Your task to perform on an android device: turn on javascript in the chrome app Image 0: 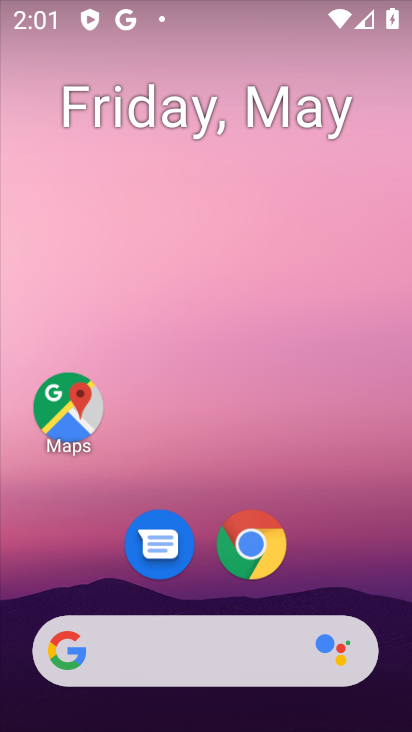
Step 0: click (244, 538)
Your task to perform on an android device: turn on javascript in the chrome app Image 1: 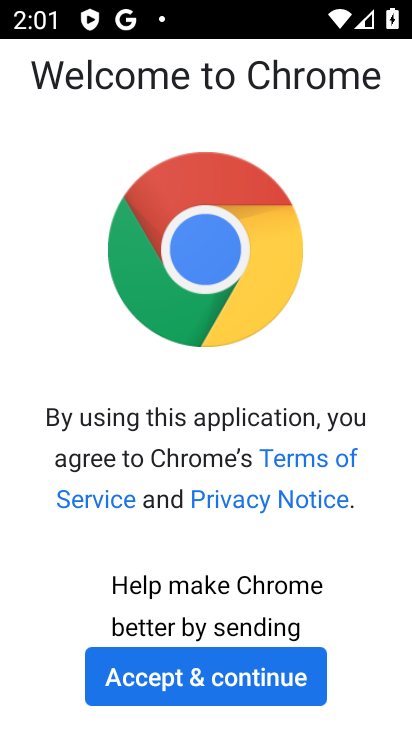
Step 1: click (249, 659)
Your task to perform on an android device: turn on javascript in the chrome app Image 2: 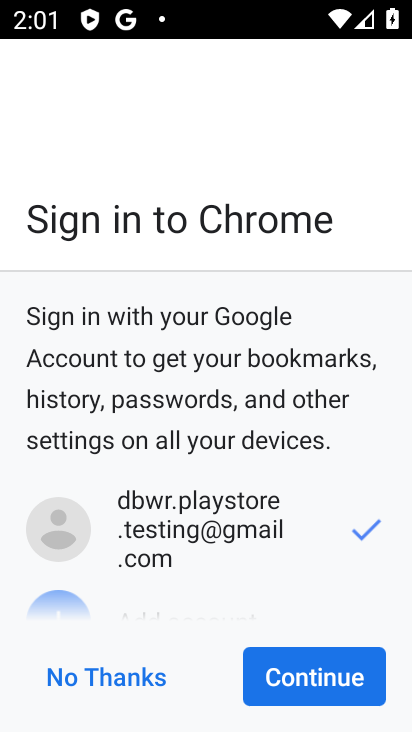
Step 2: click (277, 673)
Your task to perform on an android device: turn on javascript in the chrome app Image 3: 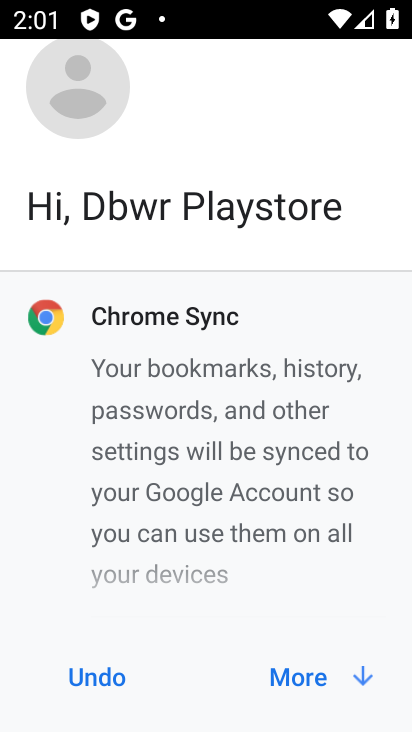
Step 3: click (302, 659)
Your task to perform on an android device: turn on javascript in the chrome app Image 4: 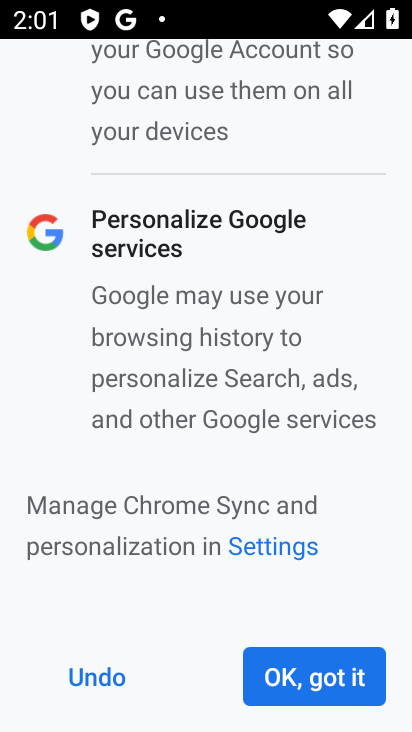
Step 4: click (299, 663)
Your task to perform on an android device: turn on javascript in the chrome app Image 5: 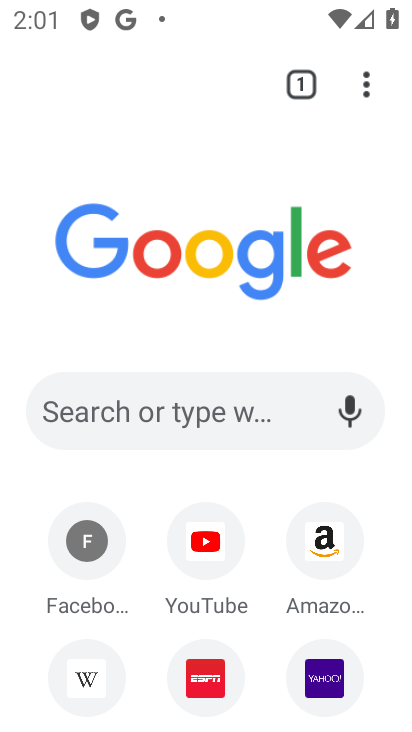
Step 5: drag from (361, 97) to (143, 592)
Your task to perform on an android device: turn on javascript in the chrome app Image 6: 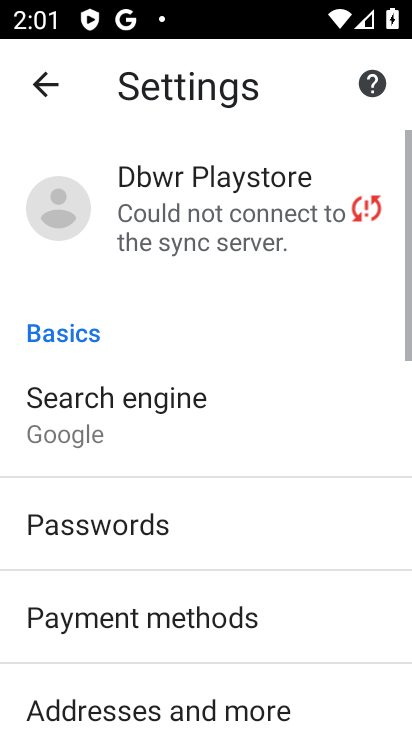
Step 6: drag from (185, 607) to (186, 230)
Your task to perform on an android device: turn on javascript in the chrome app Image 7: 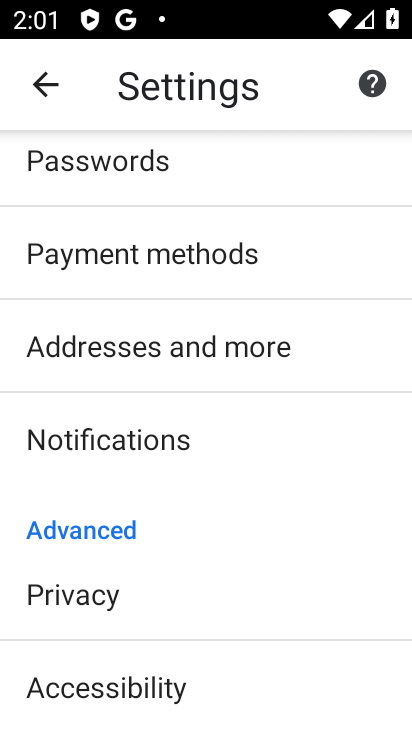
Step 7: drag from (191, 633) to (194, 337)
Your task to perform on an android device: turn on javascript in the chrome app Image 8: 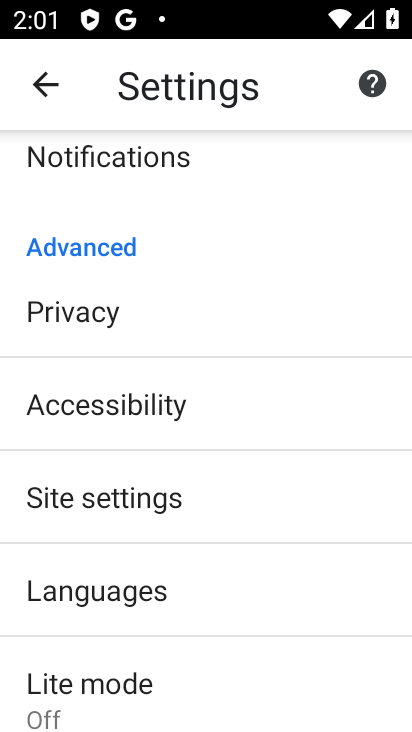
Step 8: click (146, 505)
Your task to perform on an android device: turn on javascript in the chrome app Image 9: 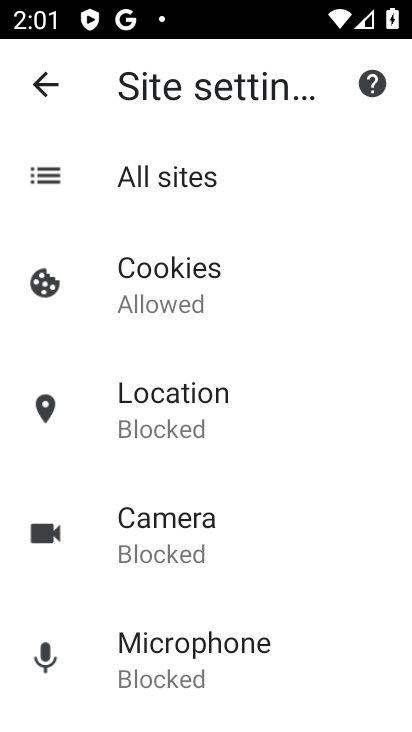
Step 9: drag from (208, 557) to (233, 285)
Your task to perform on an android device: turn on javascript in the chrome app Image 10: 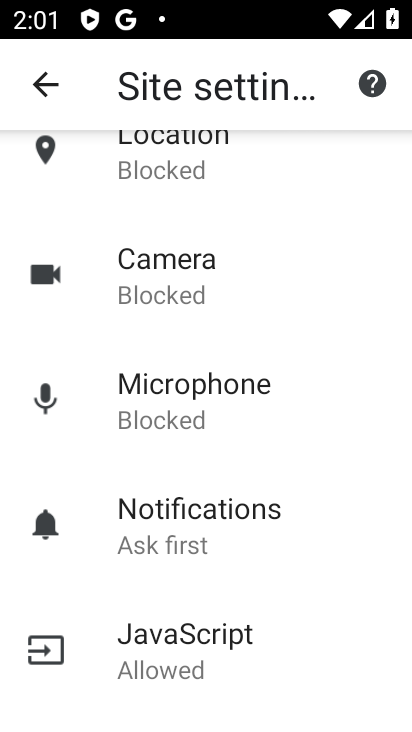
Step 10: click (239, 593)
Your task to perform on an android device: turn on javascript in the chrome app Image 11: 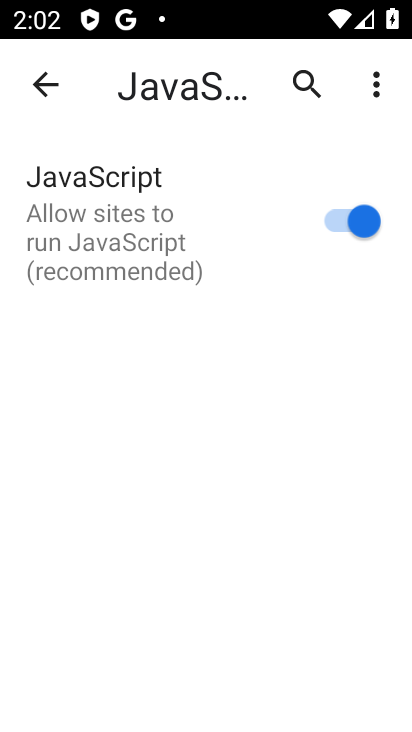
Step 11: task complete